Your task to perform on an android device: Go to notification settings Image 0: 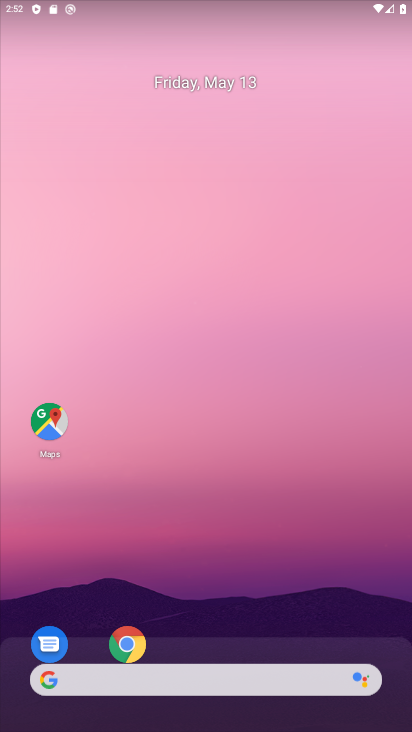
Step 0: drag from (240, 626) to (196, 57)
Your task to perform on an android device: Go to notification settings Image 1: 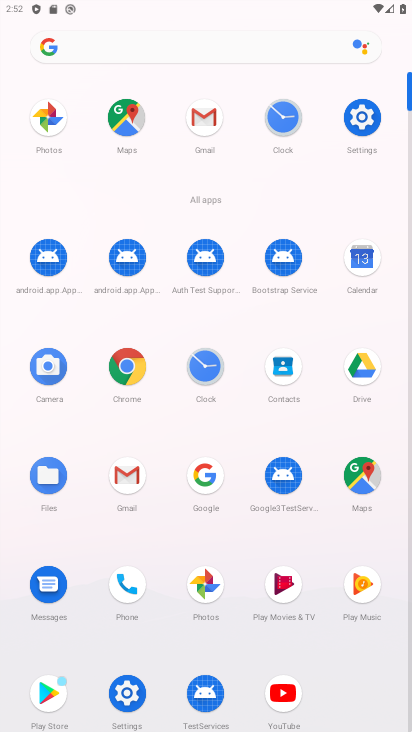
Step 1: drag from (247, 632) to (245, 174)
Your task to perform on an android device: Go to notification settings Image 2: 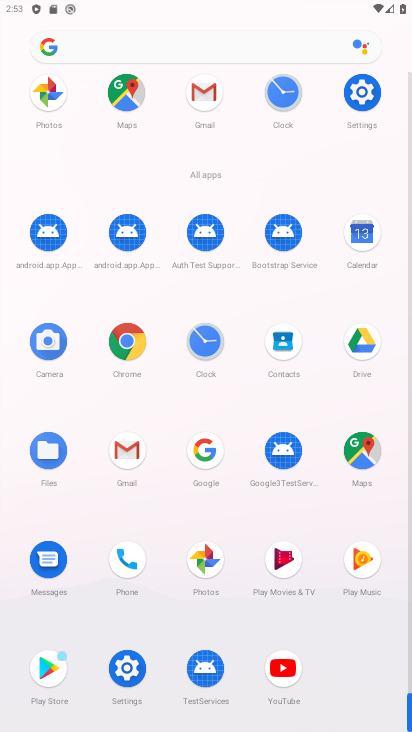
Step 2: click (368, 94)
Your task to perform on an android device: Go to notification settings Image 3: 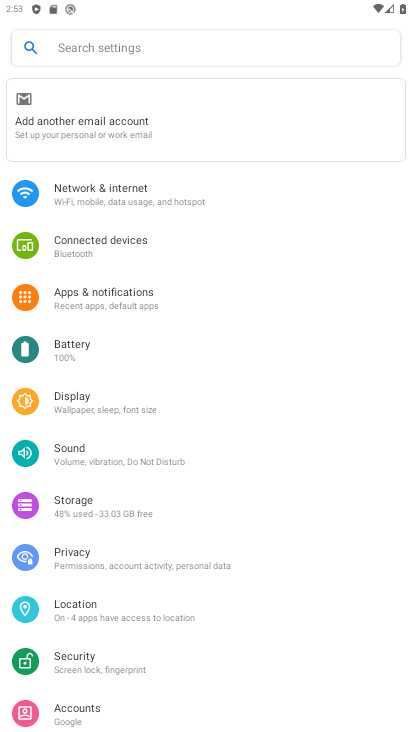
Step 3: click (107, 294)
Your task to perform on an android device: Go to notification settings Image 4: 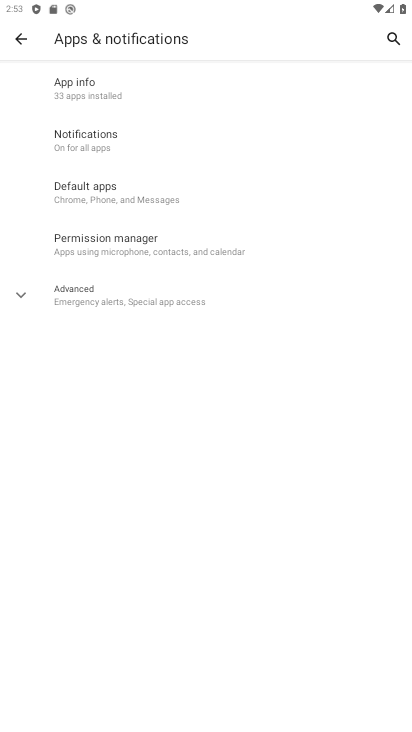
Step 4: click (87, 146)
Your task to perform on an android device: Go to notification settings Image 5: 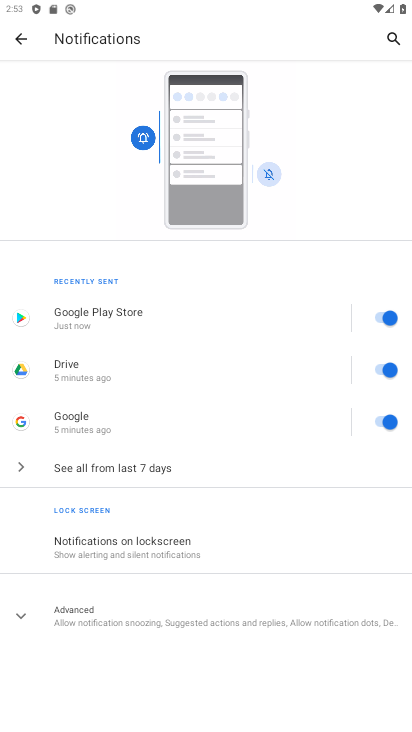
Step 5: click (74, 619)
Your task to perform on an android device: Go to notification settings Image 6: 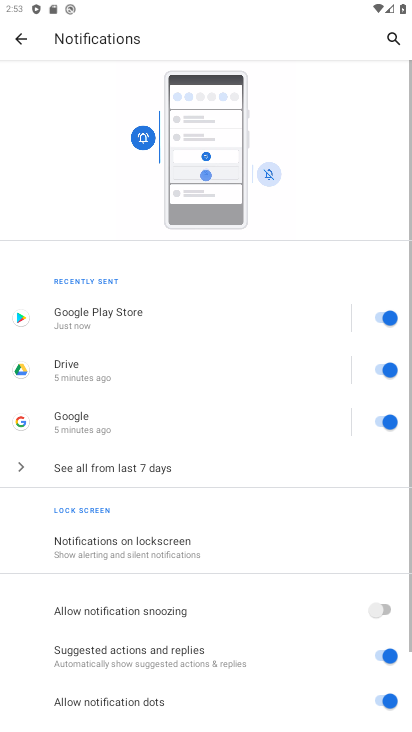
Step 6: task complete